Your task to perform on an android device: What is the news today? Image 0: 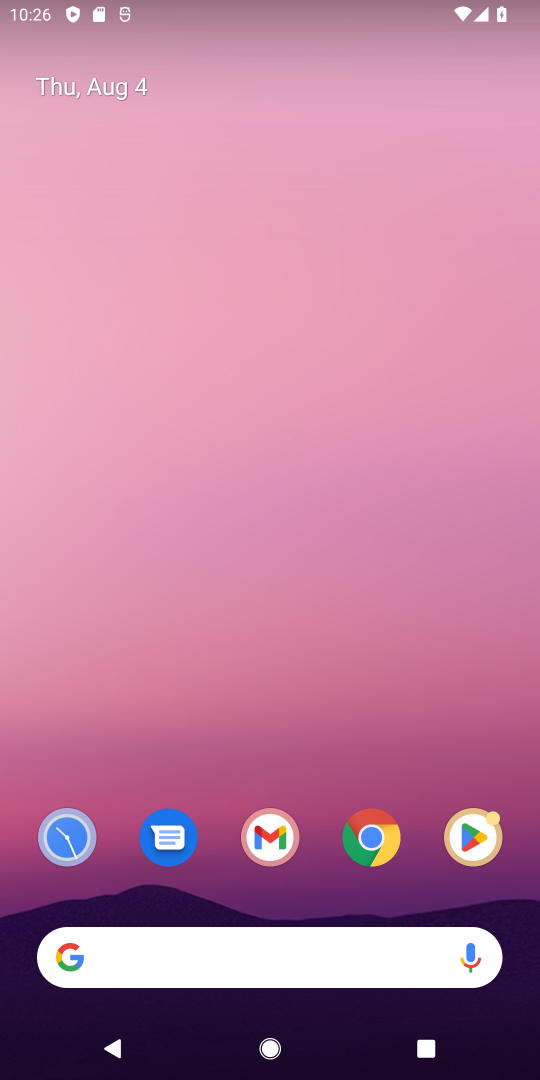
Step 0: drag from (302, 896) to (191, 182)
Your task to perform on an android device: What is the news today? Image 1: 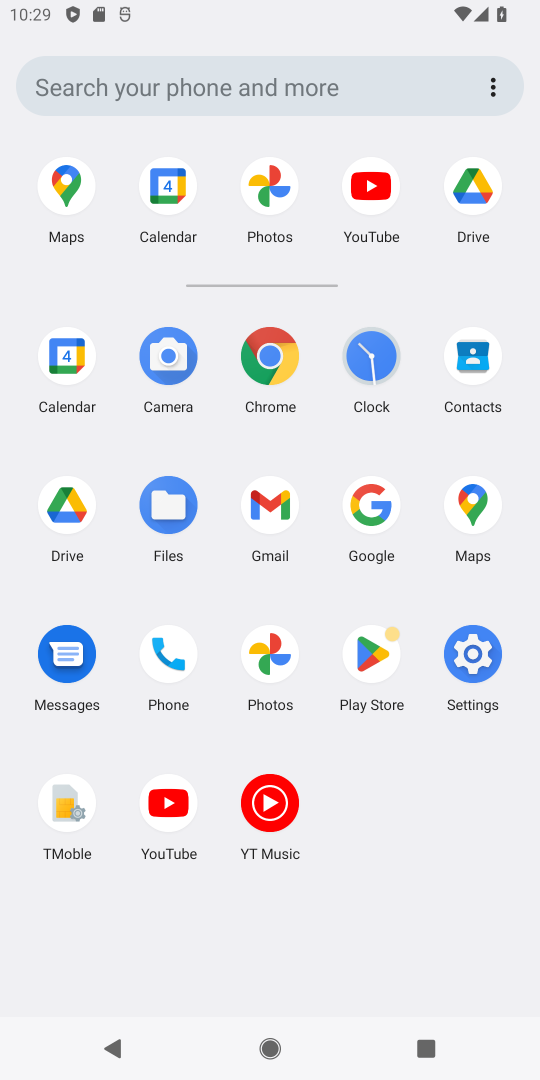
Step 1: click (368, 524)
Your task to perform on an android device: What is the news today? Image 2: 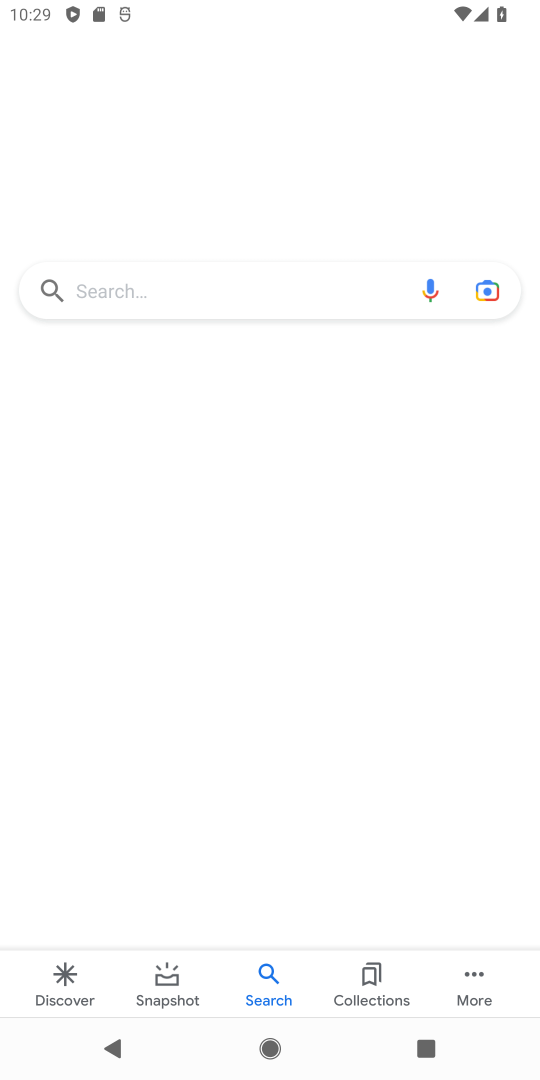
Step 2: click (159, 293)
Your task to perform on an android device: What is the news today? Image 3: 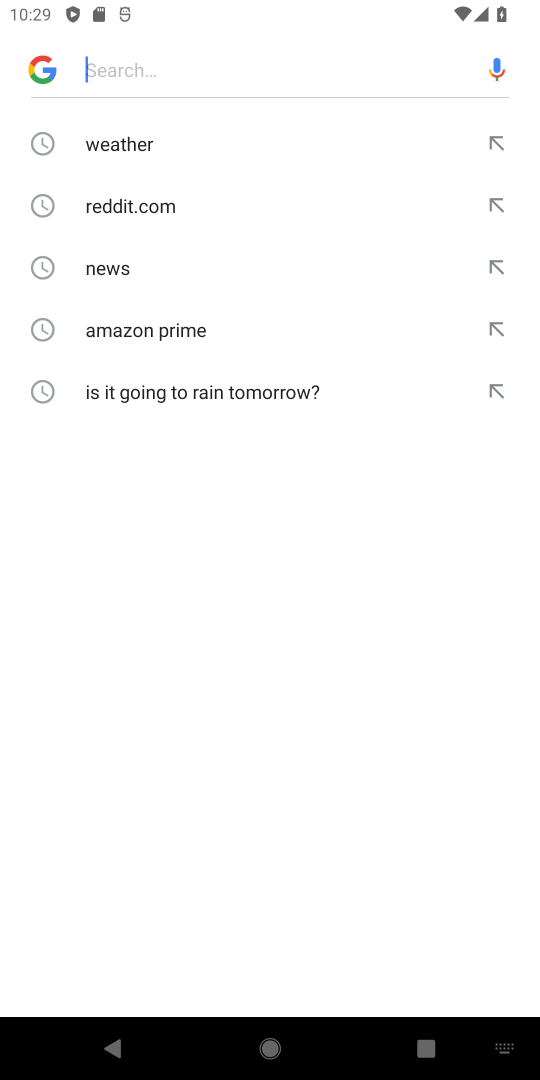
Step 3: type "What is the news today?"
Your task to perform on an android device: What is the news today? Image 4: 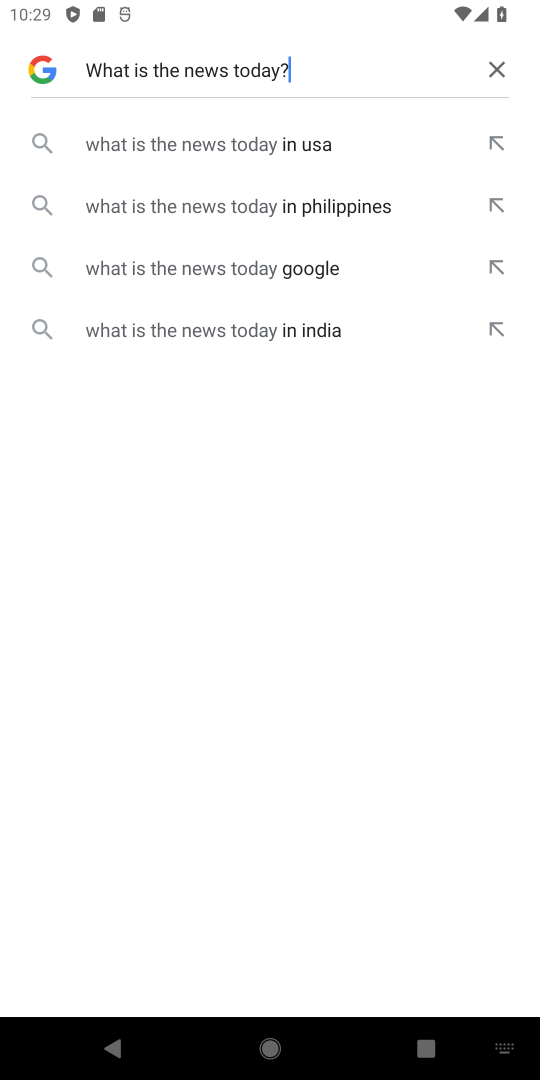
Step 4: click (186, 271)
Your task to perform on an android device: What is the news today? Image 5: 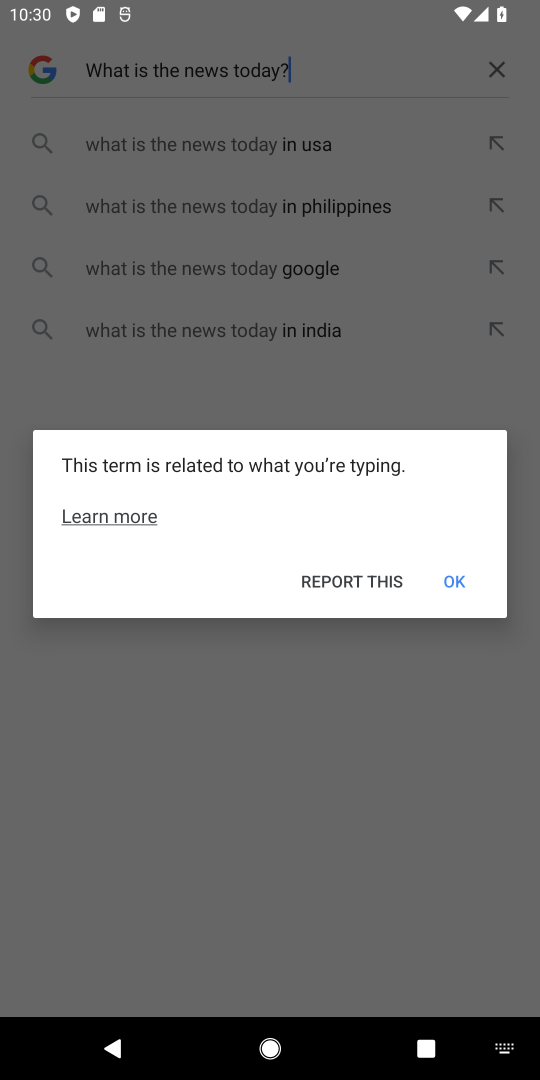
Step 5: task complete